Your task to perform on an android device: Show me productivity apps on the Play Store Image 0: 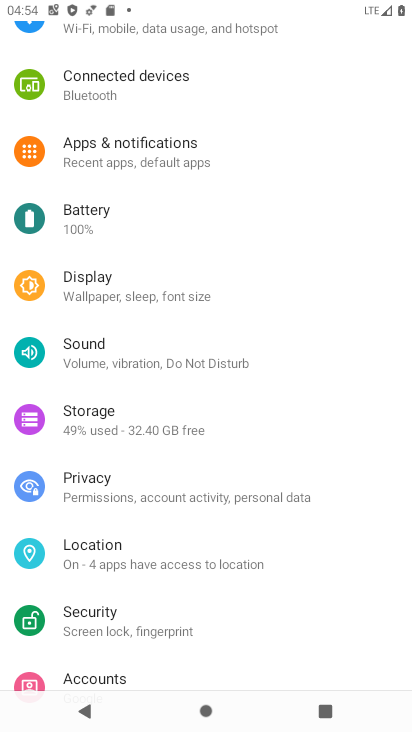
Step 0: press back button
Your task to perform on an android device: Show me productivity apps on the Play Store Image 1: 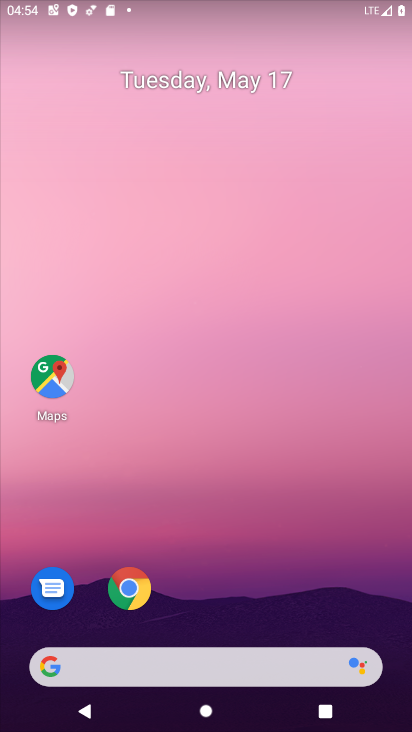
Step 1: drag from (269, 579) to (244, 70)
Your task to perform on an android device: Show me productivity apps on the Play Store Image 2: 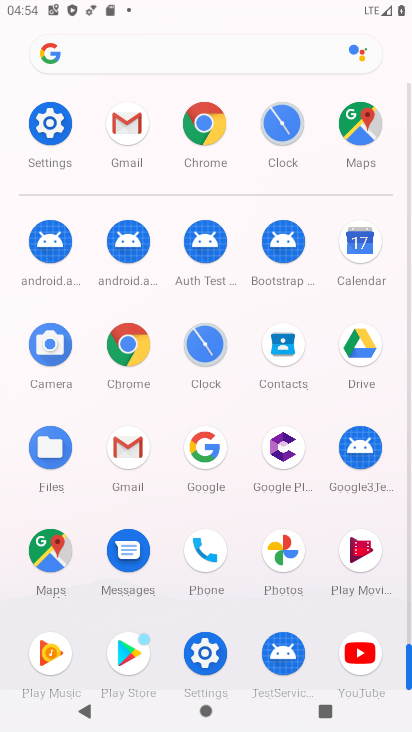
Step 2: drag from (174, 529) to (175, 430)
Your task to perform on an android device: Show me productivity apps on the Play Store Image 3: 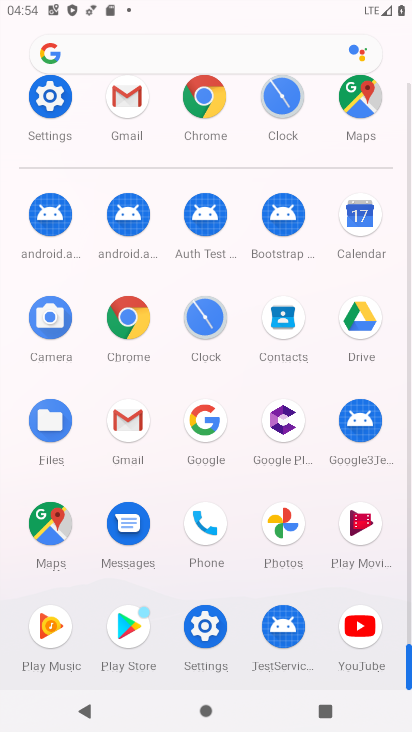
Step 3: click (131, 628)
Your task to perform on an android device: Show me productivity apps on the Play Store Image 4: 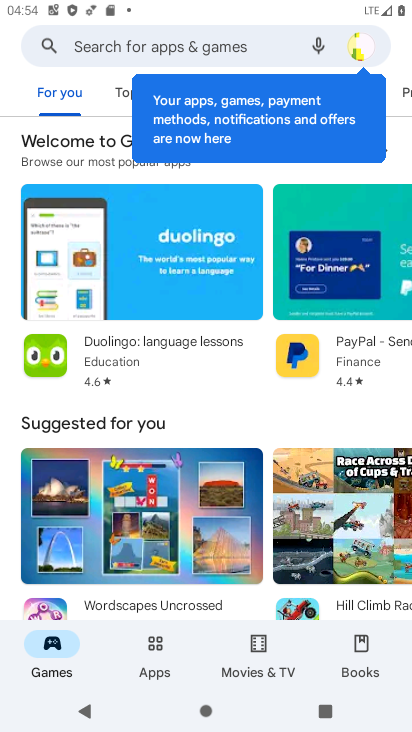
Step 4: click (154, 643)
Your task to perform on an android device: Show me productivity apps on the Play Store Image 5: 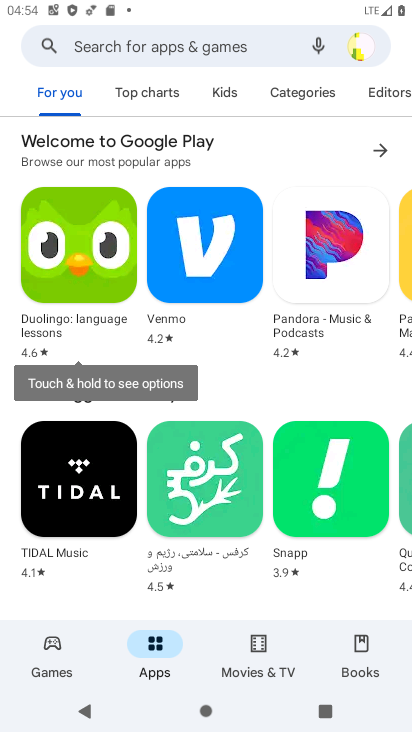
Step 5: click (308, 94)
Your task to perform on an android device: Show me productivity apps on the Play Store Image 6: 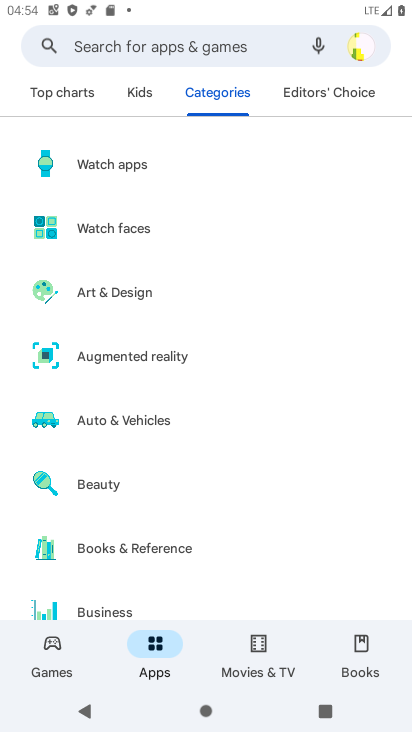
Step 6: drag from (128, 392) to (139, 322)
Your task to perform on an android device: Show me productivity apps on the Play Store Image 7: 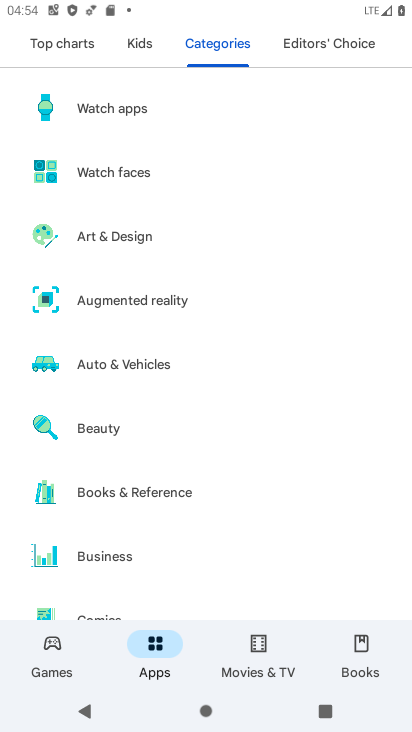
Step 7: drag from (119, 416) to (121, 326)
Your task to perform on an android device: Show me productivity apps on the Play Store Image 8: 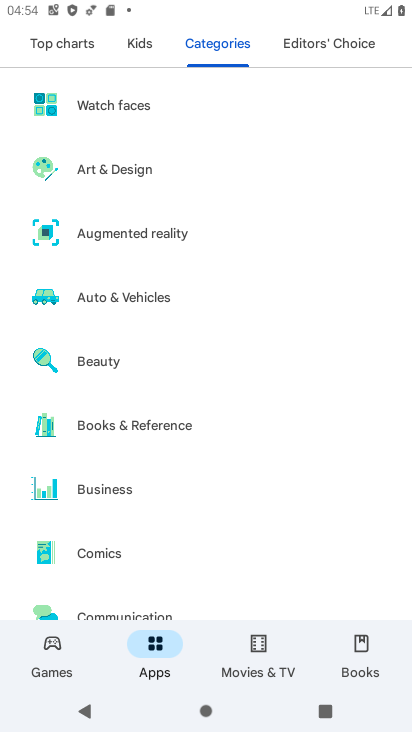
Step 8: drag from (116, 413) to (147, 289)
Your task to perform on an android device: Show me productivity apps on the Play Store Image 9: 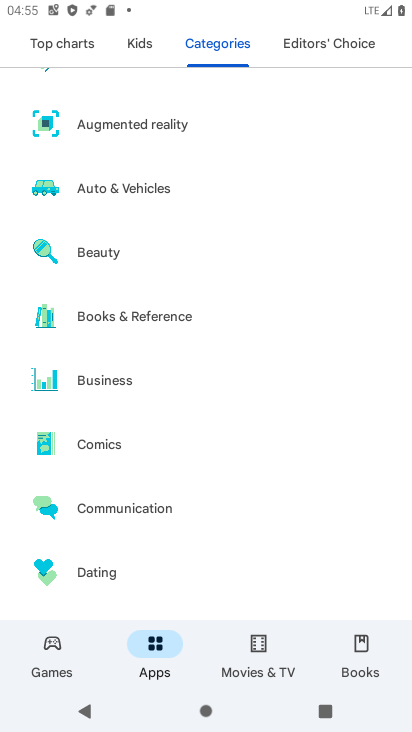
Step 9: drag from (125, 539) to (177, 428)
Your task to perform on an android device: Show me productivity apps on the Play Store Image 10: 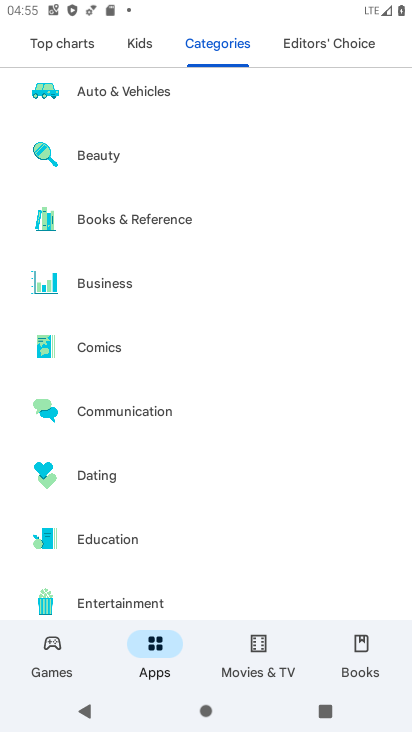
Step 10: drag from (109, 522) to (159, 428)
Your task to perform on an android device: Show me productivity apps on the Play Store Image 11: 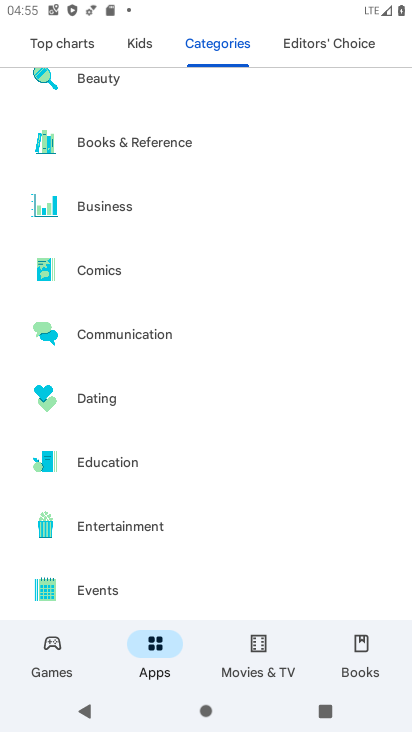
Step 11: drag from (94, 511) to (99, 420)
Your task to perform on an android device: Show me productivity apps on the Play Store Image 12: 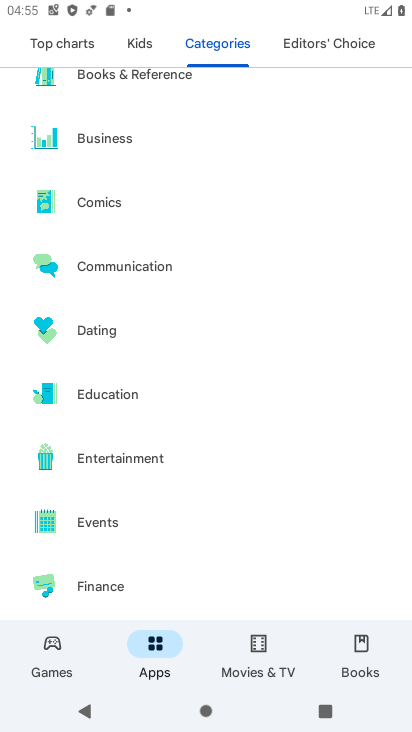
Step 12: drag from (87, 499) to (120, 393)
Your task to perform on an android device: Show me productivity apps on the Play Store Image 13: 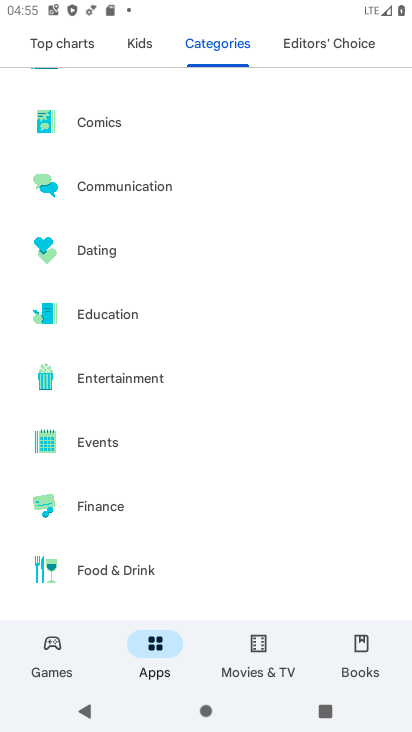
Step 13: click (118, 462)
Your task to perform on an android device: Show me productivity apps on the Play Store Image 14: 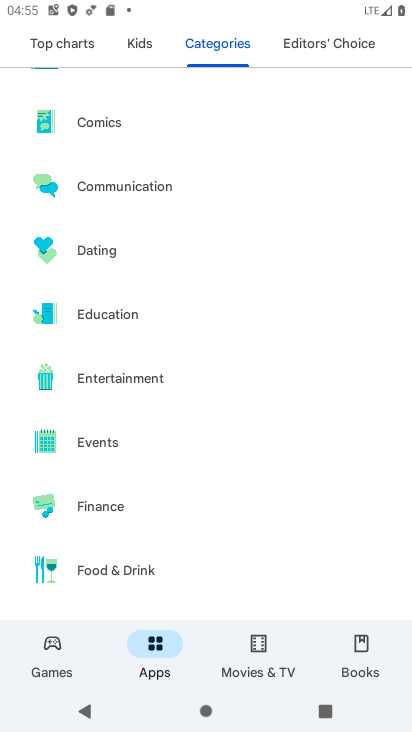
Step 14: drag from (100, 535) to (140, 454)
Your task to perform on an android device: Show me productivity apps on the Play Store Image 15: 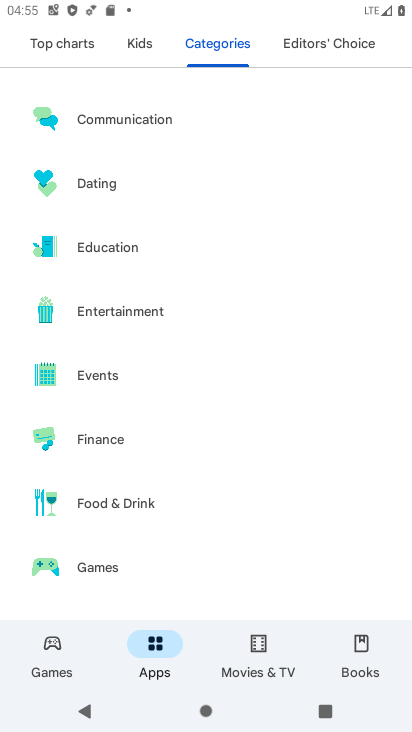
Step 15: drag from (96, 528) to (129, 461)
Your task to perform on an android device: Show me productivity apps on the Play Store Image 16: 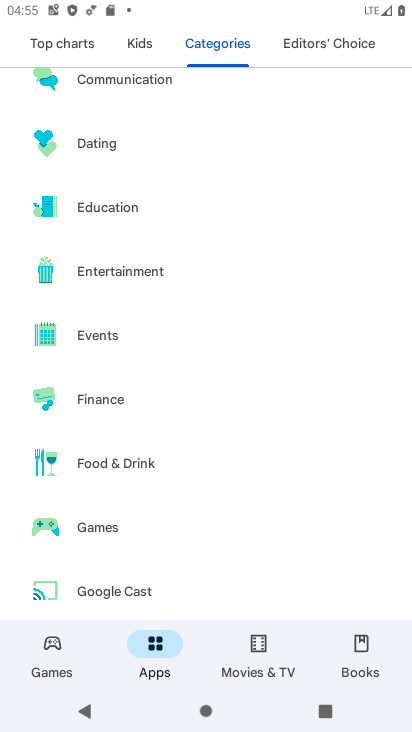
Step 16: drag from (93, 545) to (149, 448)
Your task to perform on an android device: Show me productivity apps on the Play Store Image 17: 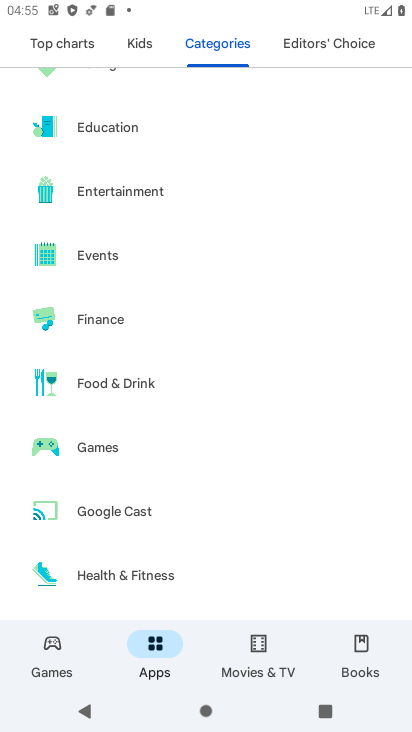
Step 17: drag from (92, 553) to (118, 467)
Your task to perform on an android device: Show me productivity apps on the Play Store Image 18: 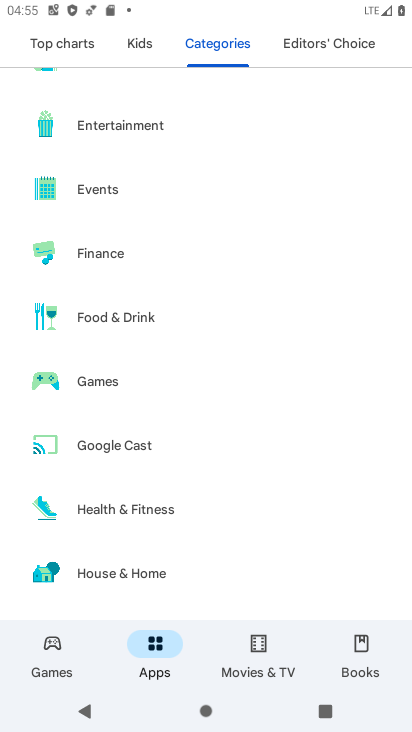
Step 18: drag from (85, 533) to (137, 429)
Your task to perform on an android device: Show me productivity apps on the Play Store Image 19: 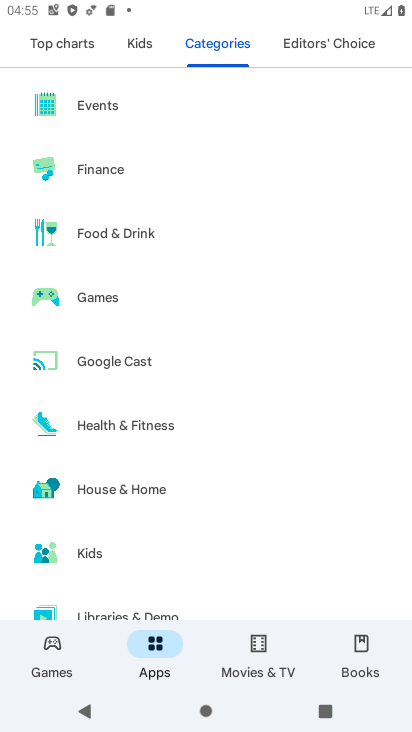
Step 19: drag from (92, 515) to (199, 398)
Your task to perform on an android device: Show me productivity apps on the Play Store Image 20: 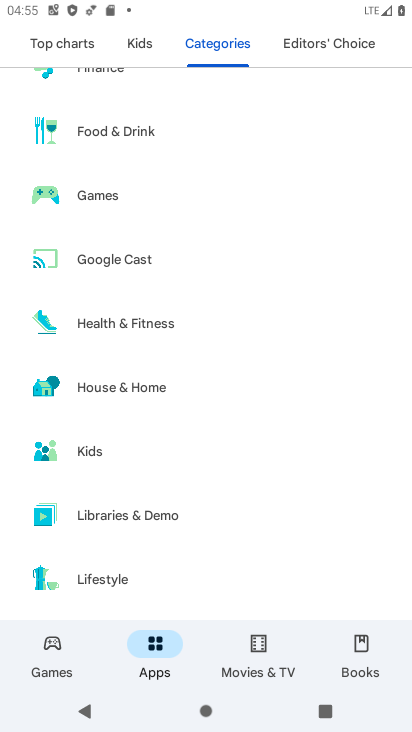
Step 20: drag from (82, 500) to (140, 417)
Your task to perform on an android device: Show me productivity apps on the Play Store Image 21: 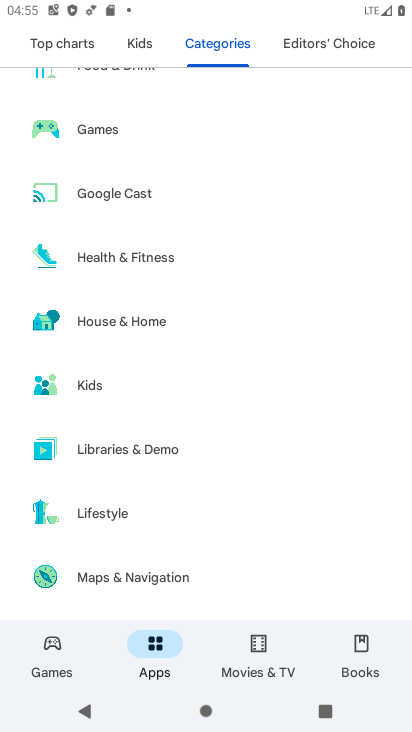
Step 21: drag from (95, 490) to (145, 405)
Your task to perform on an android device: Show me productivity apps on the Play Store Image 22: 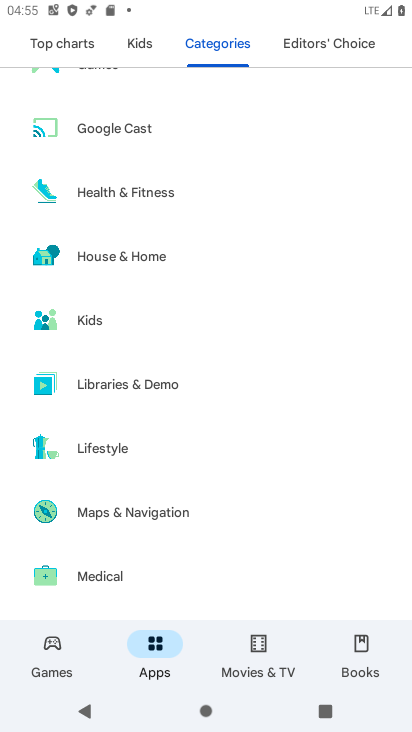
Step 22: drag from (84, 476) to (124, 403)
Your task to perform on an android device: Show me productivity apps on the Play Store Image 23: 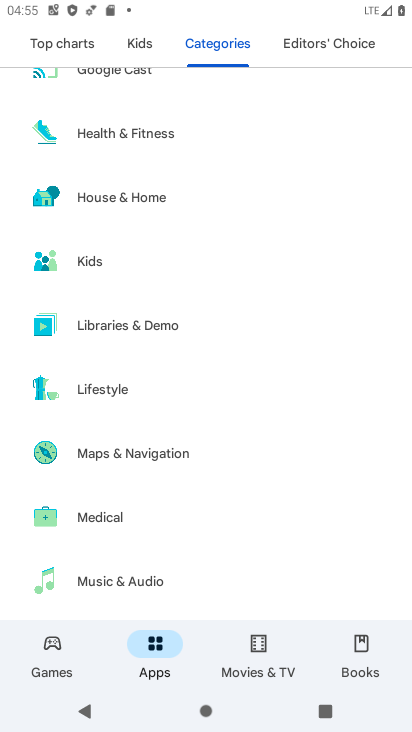
Step 23: drag from (86, 482) to (130, 374)
Your task to perform on an android device: Show me productivity apps on the Play Store Image 24: 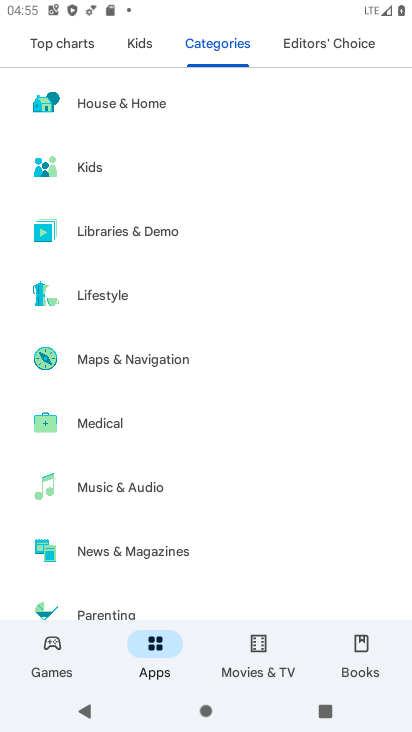
Step 24: drag from (109, 420) to (150, 367)
Your task to perform on an android device: Show me productivity apps on the Play Store Image 25: 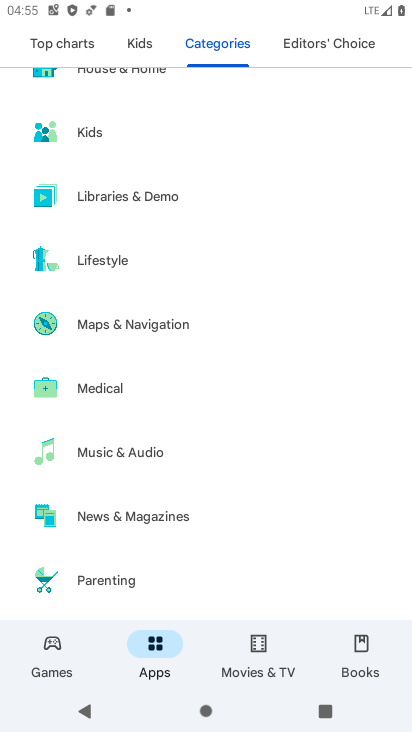
Step 25: drag from (79, 484) to (106, 373)
Your task to perform on an android device: Show me productivity apps on the Play Store Image 26: 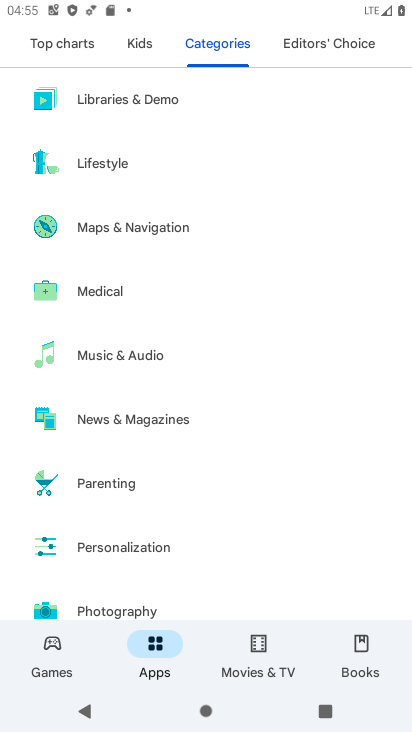
Step 26: drag from (85, 444) to (116, 360)
Your task to perform on an android device: Show me productivity apps on the Play Store Image 27: 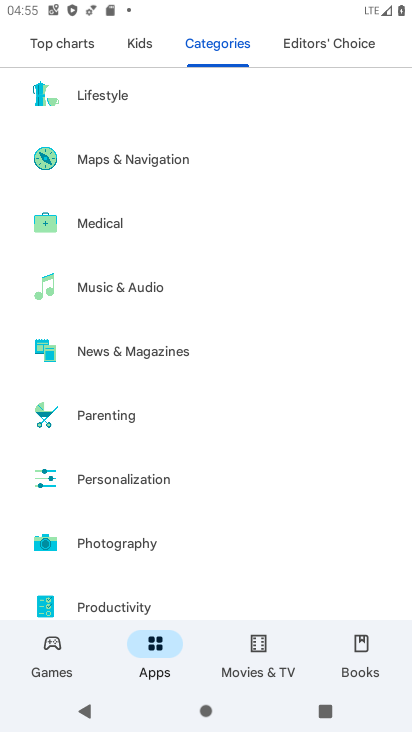
Step 27: drag from (102, 447) to (153, 369)
Your task to perform on an android device: Show me productivity apps on the Play Store Image 28: 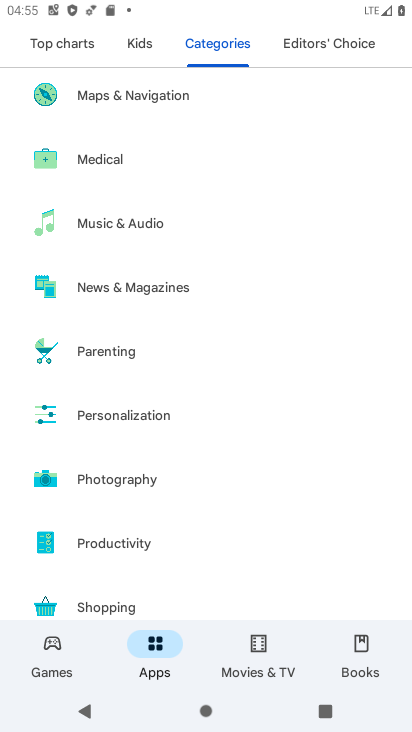
Step 28: click (124, 540)
Your task to perform on an android device: Show me productivity apps on the Play Store Image 29: 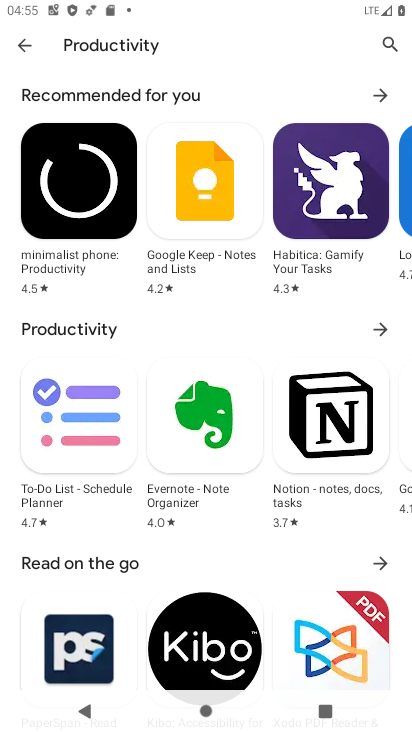
Step 29: task complete